Your task to perform on an android device: Find coffee shops on Maps Image 0: 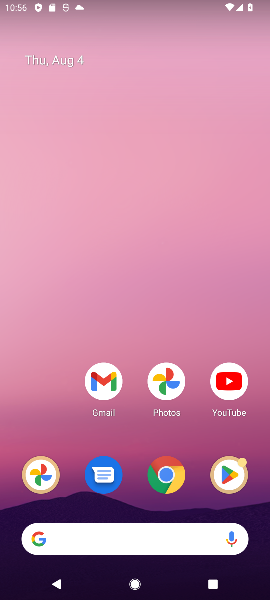
Step 0: drag from (135, 440) to (101, 141)
Your task to perform on an android device: Find coffee shops on Maps Image 1: 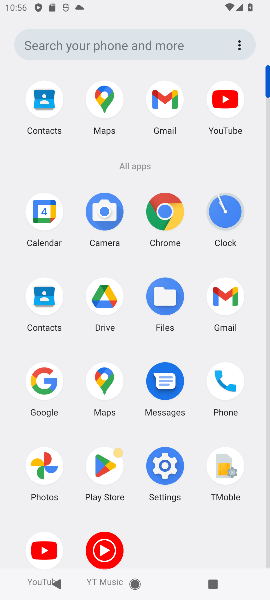
Step 1: click (101, 382)
Your task to perform on an android device: Find coffee shops on Maps Image 2: 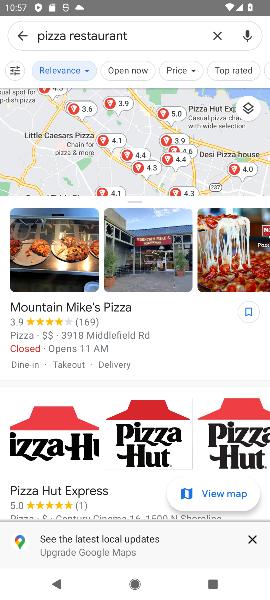
Step 2: click (216, 33)
Your task to perform on an android device: Find coffee shops on Maps Image 3: 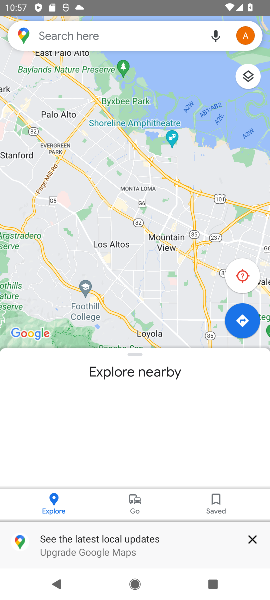
Step 3: click (171, 34)
Your task to perform on an android device: Find coffee shops on Maps Image 4: 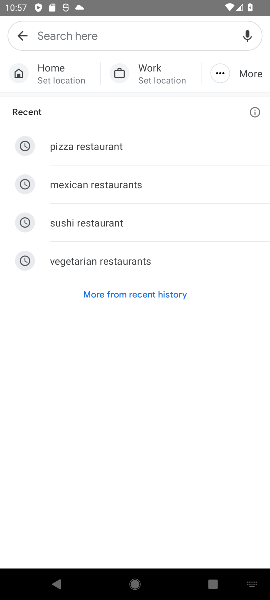
Step 4: type "coffee shops"
Your task to perform on an android device: Find coffee shops on Maps Image 5: 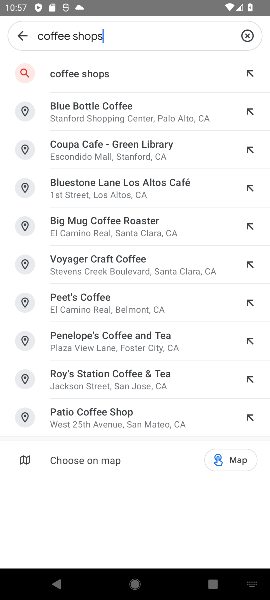
Step 5: click (123, 71)
Your task to perform on an android device: Find coffee shops on Maps Image 6: 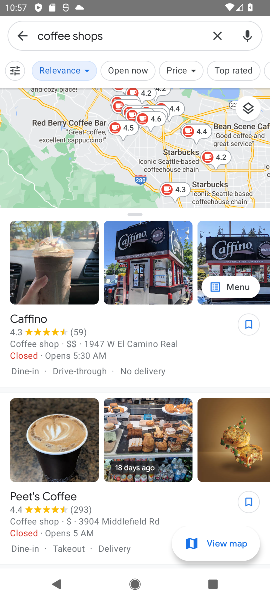
Step 6: task complete